Your task to perform on an android device: change the clock display to show seconds Image 0: 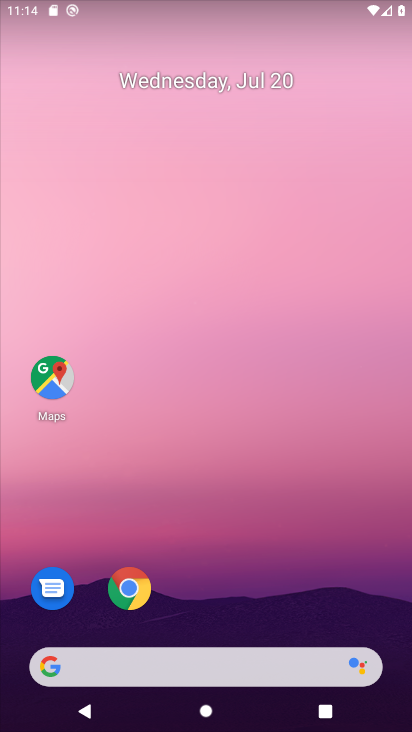
Step 0: press home button
Your task to perform on an android device: change the clock display to show seconds Image 1: 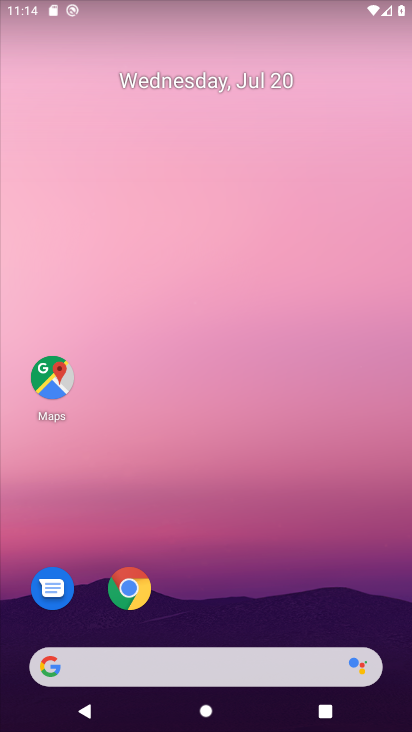
Step 1: drag from (219, 631) to (244, 35)
Your task to perform on an android device: change the clock display to show seconds Image 2: 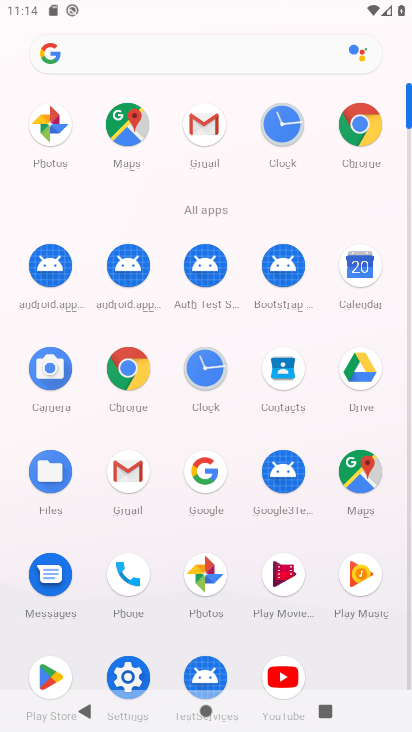
Step 2: click (206, 358)
Your task to perform on an android device: change the clock display to show seconds Image 3: 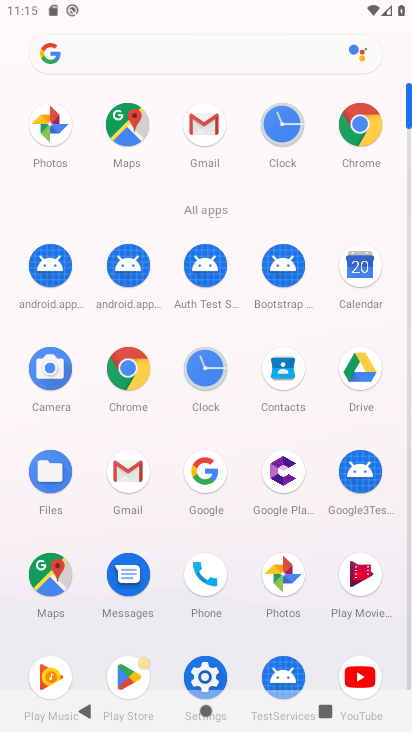
Step 3: click (205, 364)
Your task to perform on an android device: change the clock display to show seconds Image 4: 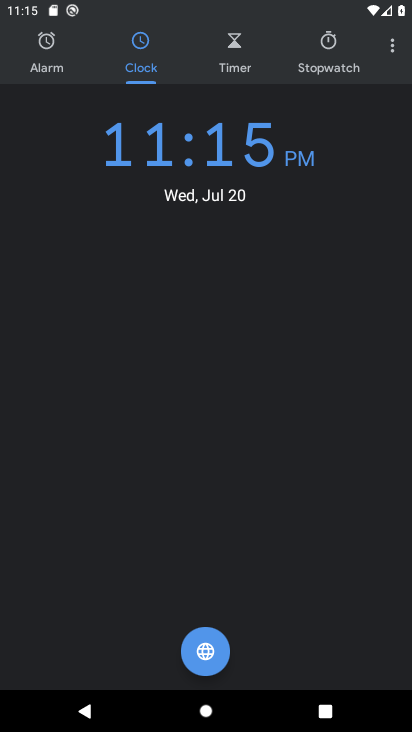
Step 4: click (391, 43)
Your task to perform on an android device: change the clock display to show seconds Image 5: 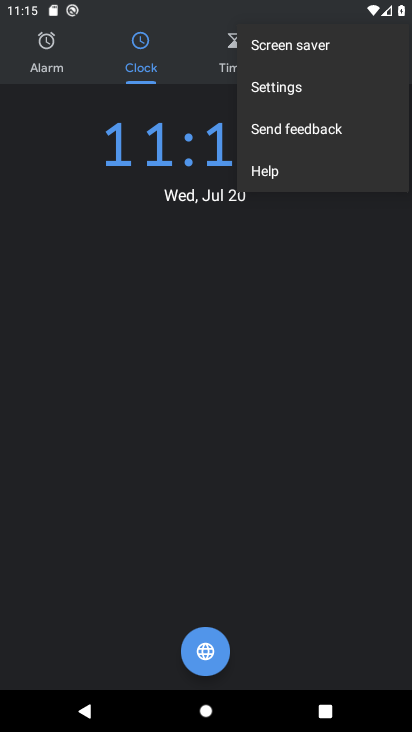
Step 5: click (295, 79)
Your task to perform on an android device: change the clock display to show seconds Image 6: 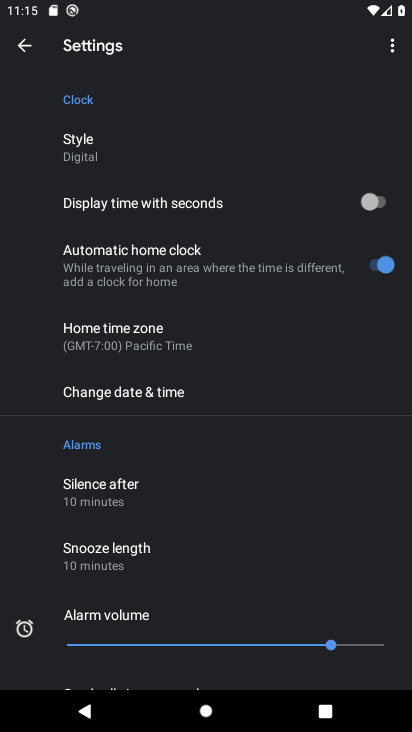
Step 6: click (375, 200)
Your task to perform on an android device: change the clock display to show seconds Image 7: 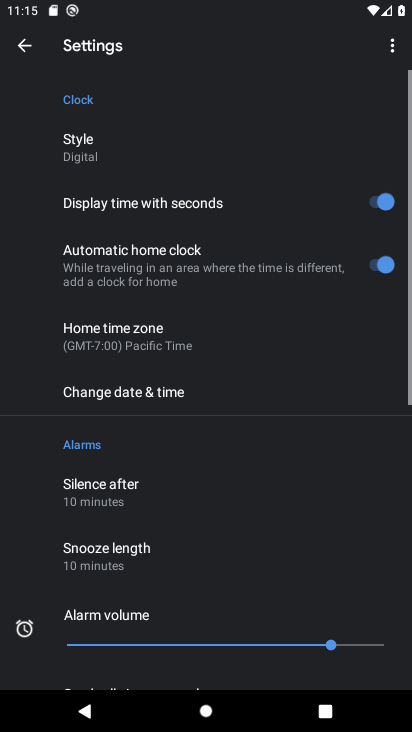
Step 7: task complete